Your task to perform on an android device: Open sound settings Image 0: 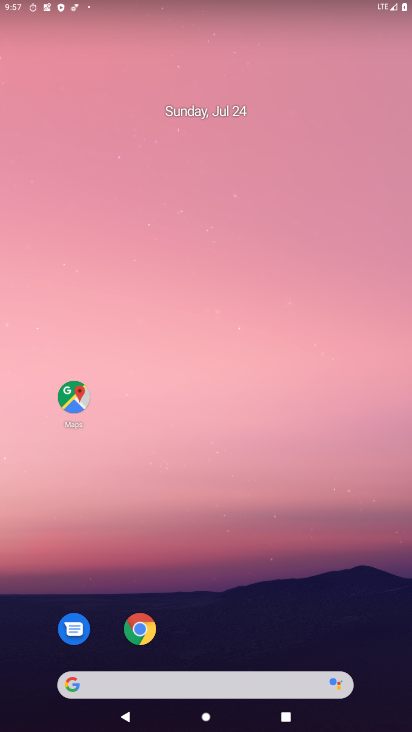
Step 0: press home button
Your task to perform on an android device: Open sound settings Image 1: 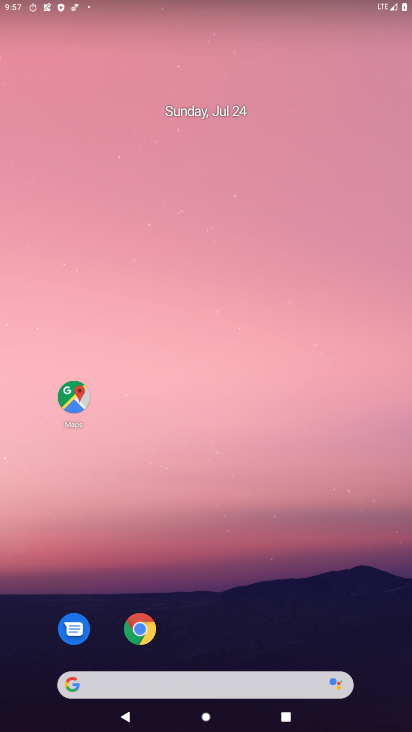
Step 1: press home button
Your task to perform on an android device: Open sound settings Image 2: 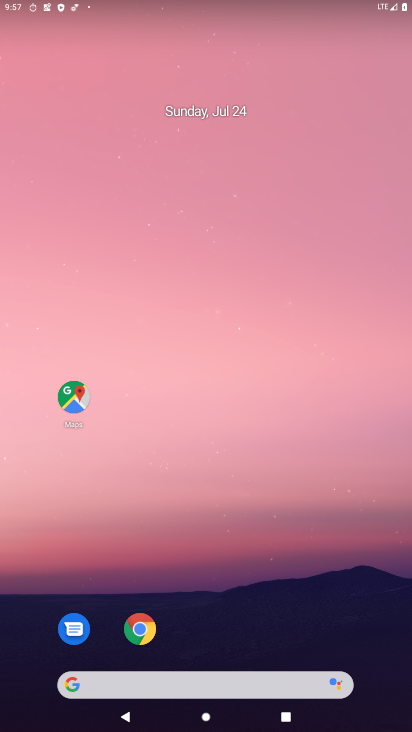
Step 2: drag from (238, 615) to (233, 59)
Your task to perform on an android device: Open sound settings Image 3: 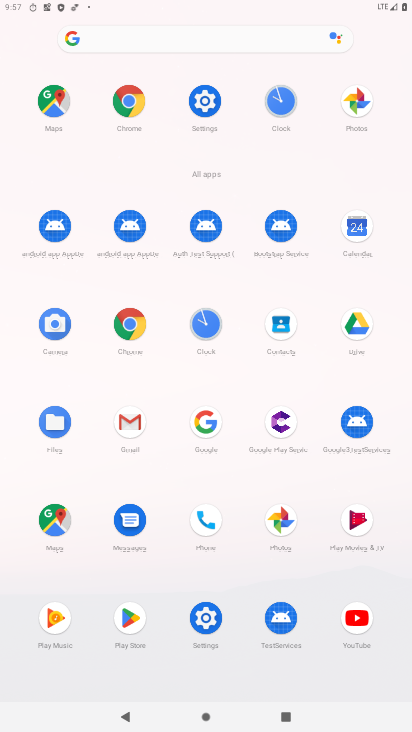
Step 3: click (201, 98)
Your task to perform on an android device: Open sound settings Image 4: 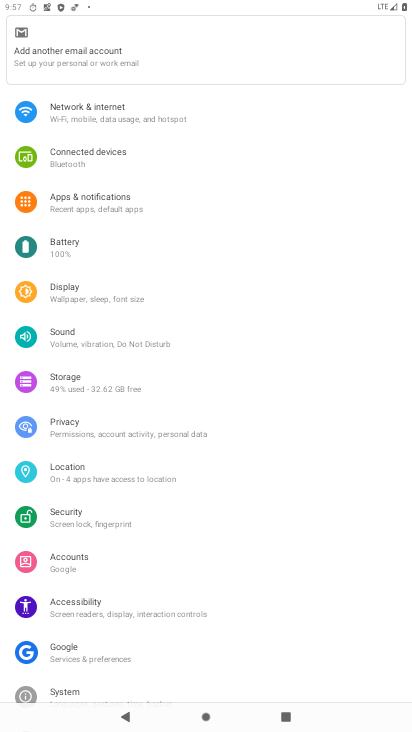
Step 4: click (87, 332)
Your task to perform on an android device: Open sound settings Image 5: 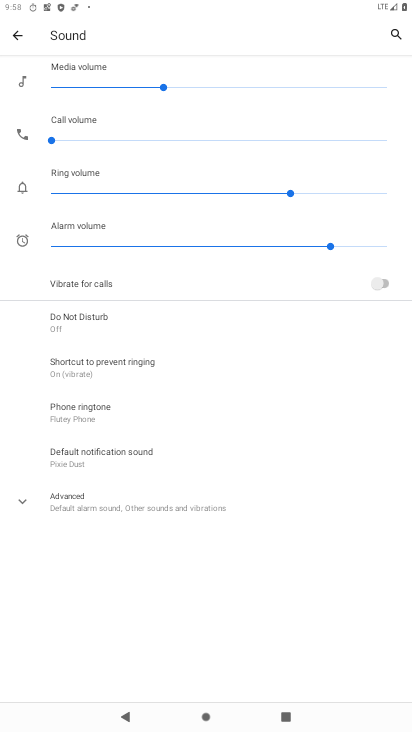
Step 5: task complete